Your task to perform on an android device: Open Google Maps and go to "Timeline" Image 0: 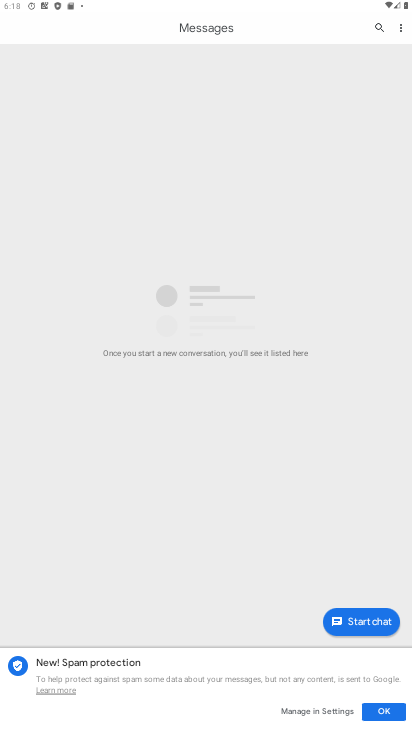
Step 0: press home button
Your task to perform on an android device: Open Google Maps and go to "Timeline" Image 1: 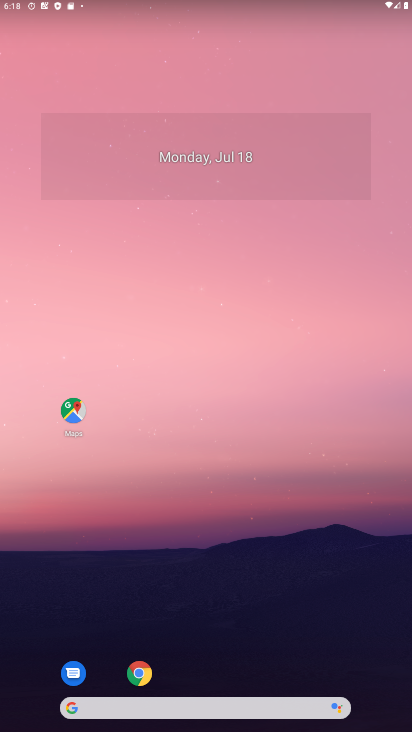
Step 1: click (71, 407)
Your task to perform on an android device: Open Google Maps and go to "Timeline" Image 2: 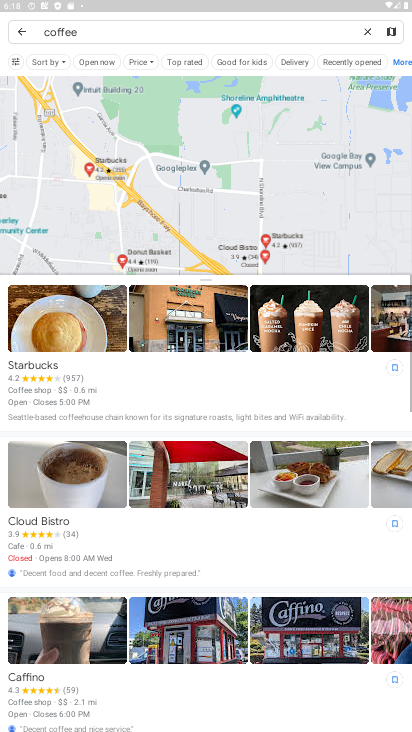
Step 2: click (18, 24)
Your task to perform on an android device: Open Google Maps and go to "Timeline" Image 3: 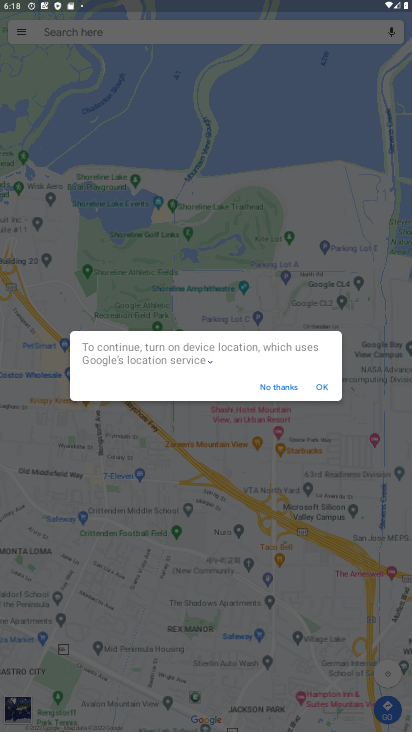
Step 3: click (325, 384)
Your task to perform on an android device: Open Google Maps and go to "Timeline" Image 4: 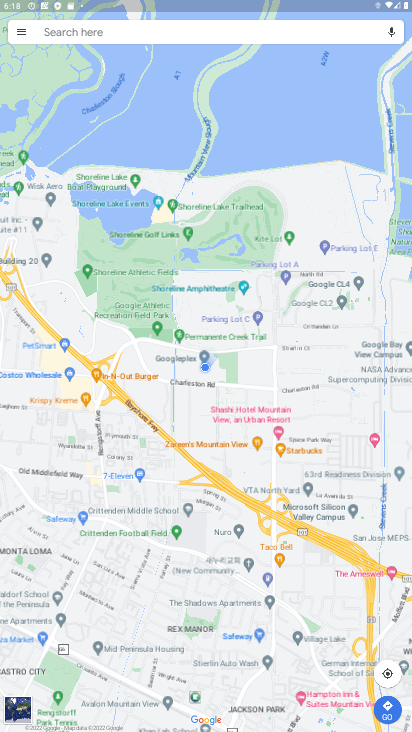
Step 4: click (21, 30)
Your task to perform on an android device: Open Google Maps and go to "Timeline" Image 5: 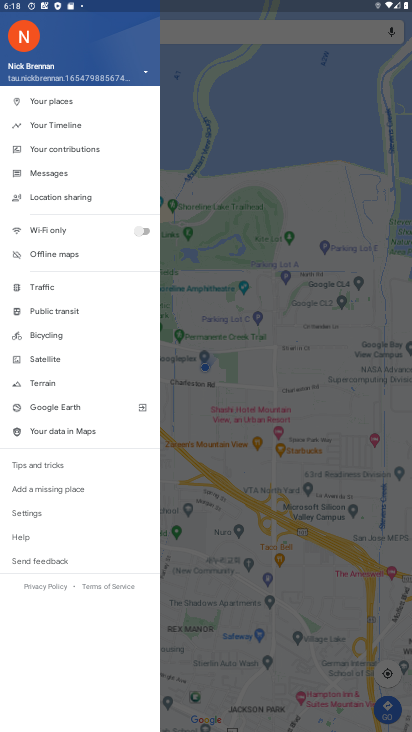
Step 5: click (53, 123)
Your task to perform on an android device: Open Google Maps and go to "Timeline" Image 6: 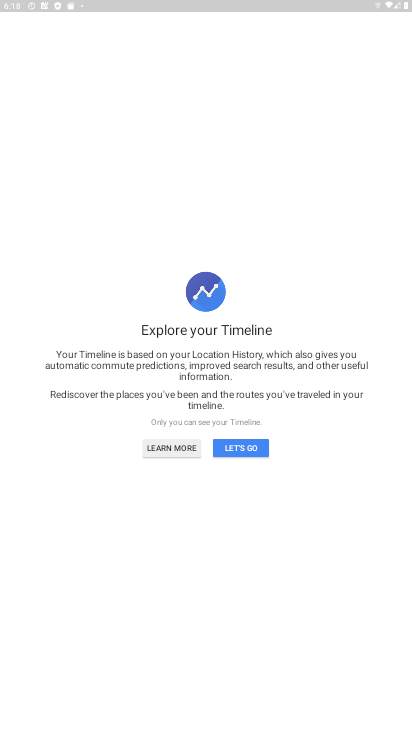
Step 6: task complete